Your task to perform on an android device: Go to accessibility settings Image 0: 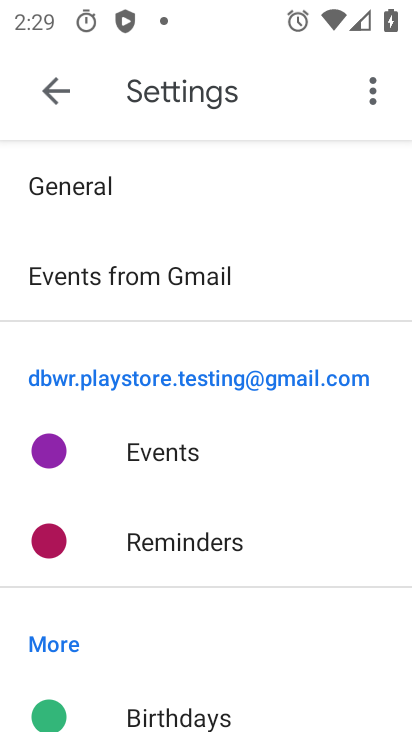
Step 0: press home button
Your task to perform on an android device: Go to accessibility settings Image 1: 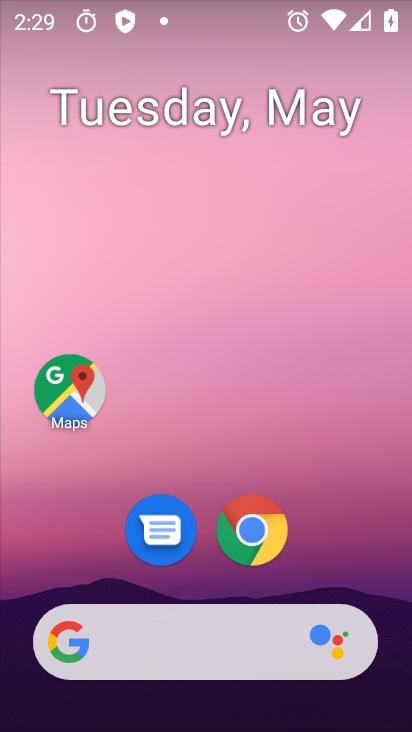
Step 1: drag from (216, 580) to (155, 17)
Your task to perform on an android device: Go to accessibility settings Image 2: 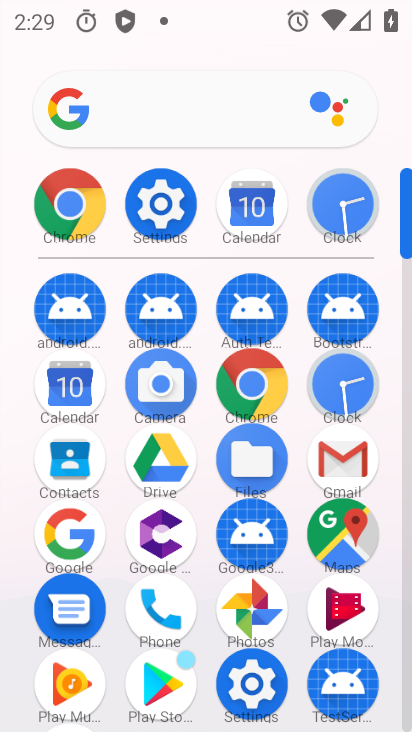
Step 2: click (167, 198)
Your task to perform on an android device: Go to accessibility settings Image 3: 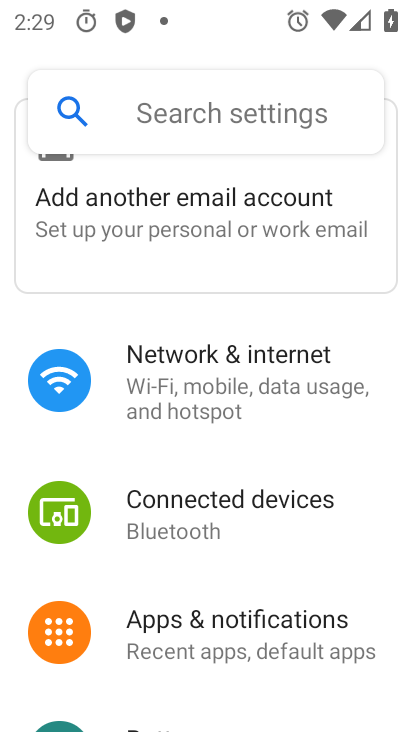
Step 3: drag from (163, 519) to (90, 28)
Your task to perform on an android device: Go to accessibility settings Image 4: 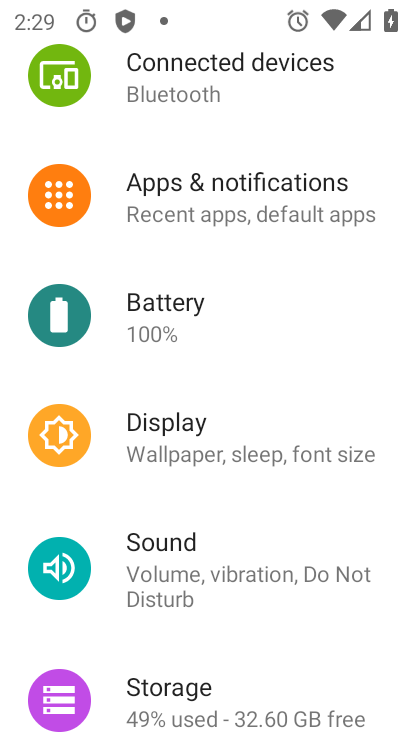
Step 4: drag from (195, 624) to (167, 184)
Your task to perform on an android device: Go to accessibility settings Image 5: 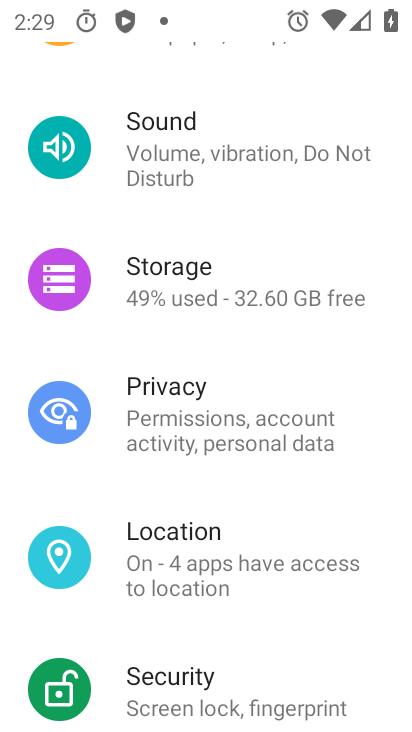
Step 5: drag from (293, 613) to (242, 300)
Your task to perform on an android device: Go to accessibility settings Image 6: 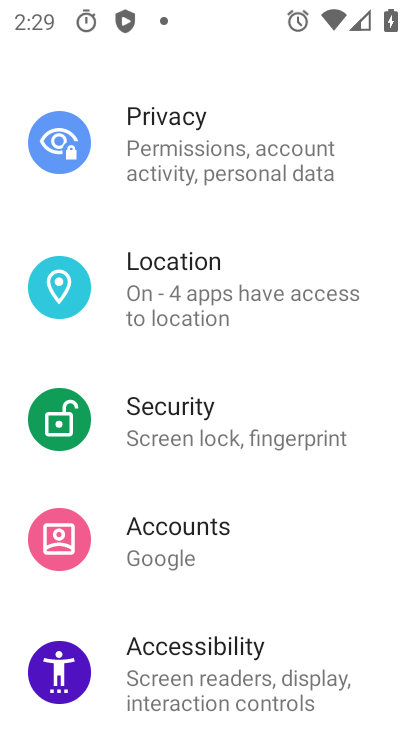
Step 6: click (232, 661)
Your task to perform on an android device: Go to accessibility settings Image 7: 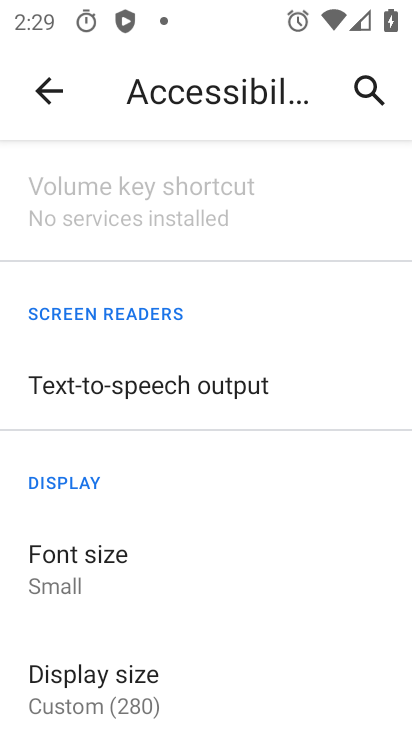
Step 7: task complete